Your task to perform on an android device: open wifi settings Image 0: 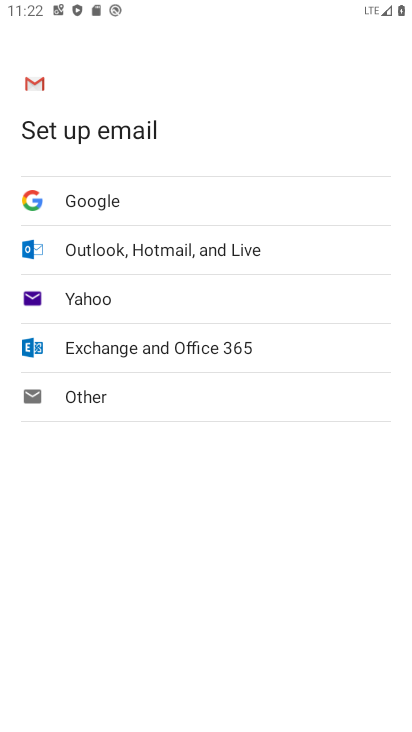
Step 0: press home button
Your task to perform on an android device: open wifi settings Image 1: 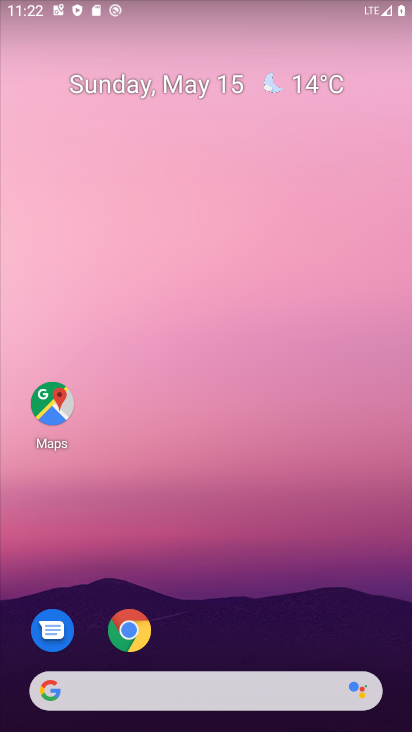
Step 1: drag from (136, 12) to (145, 482)
Your task to perform on an android device: open wifi settings Image 2: 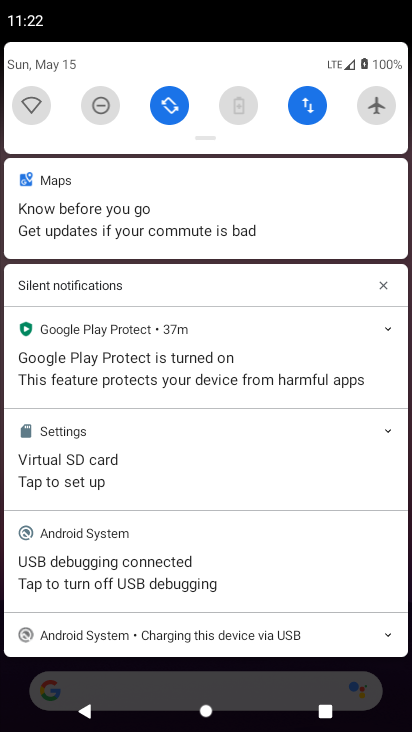
Step 2: click (34, 94)
Your task to perform on an android device: open wifi settings Image 3: 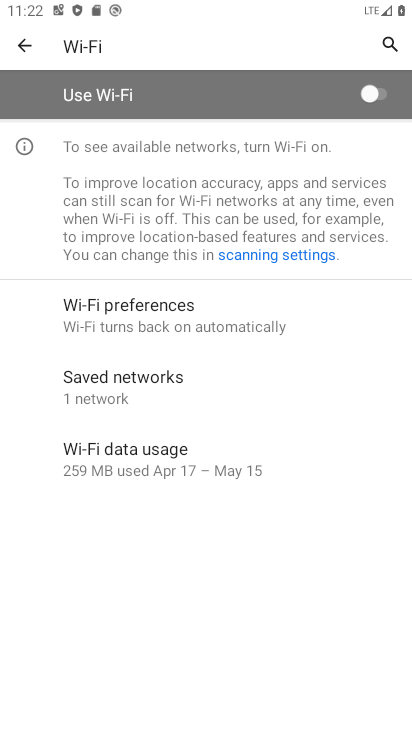
Step 3: click (375, 96)
Your task to perform on an android device: open wifi settings Image 4: 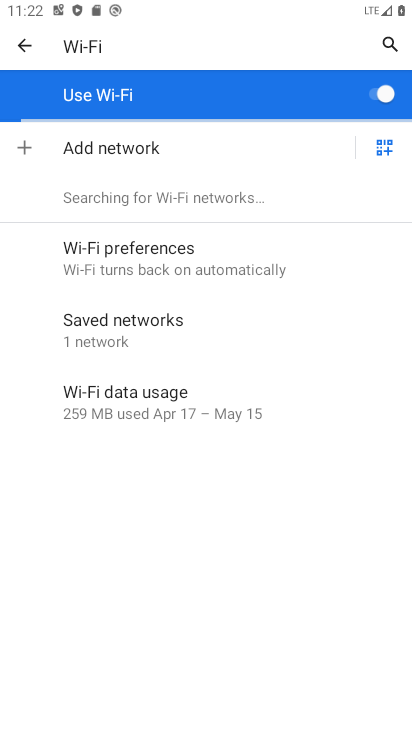
Step 4: task complete